Your task to perform on an android device: turn off sleep mode Image 0: 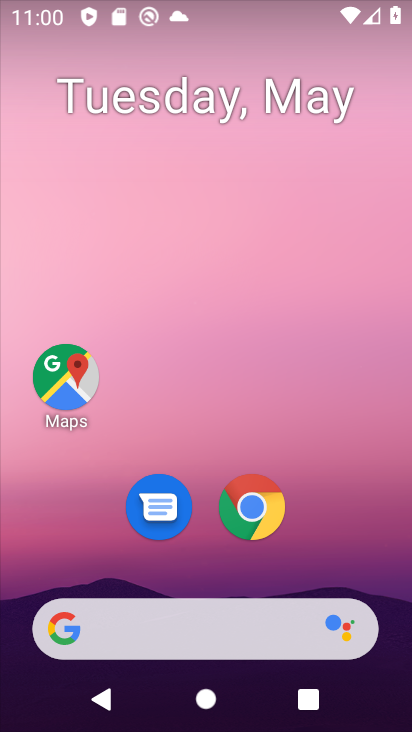
Step 0: drag from (233, 488) to (186, 142)
Your task to perform on an android device: turn off sleep mode Image 1: 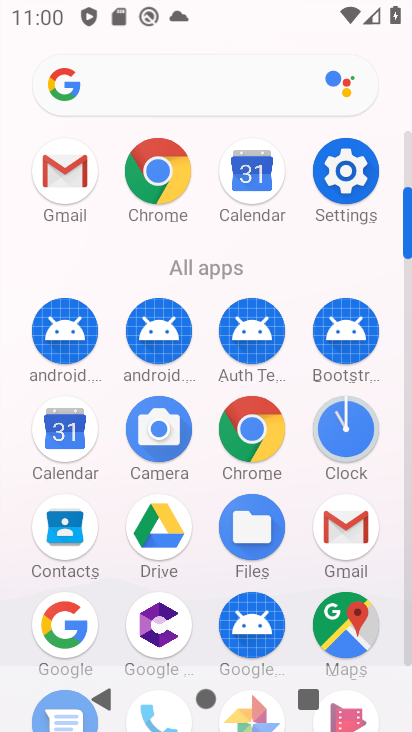
Step 1: click (331, 159)
Your task to perform on an android device: turn off sleep mode Image 2: 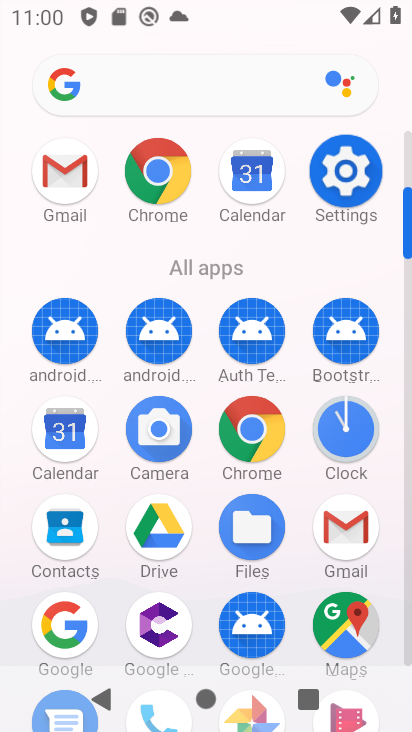
Step 2: click (338, 169)
Your task to perform on an android device: turn off sleep mode Image 3: 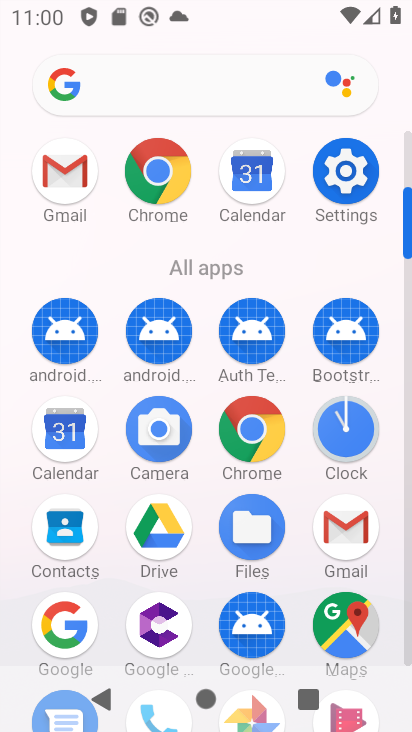
Step 3: click (338, 171)
Your task to perform on an android device: turn off sleep mode Image 4: 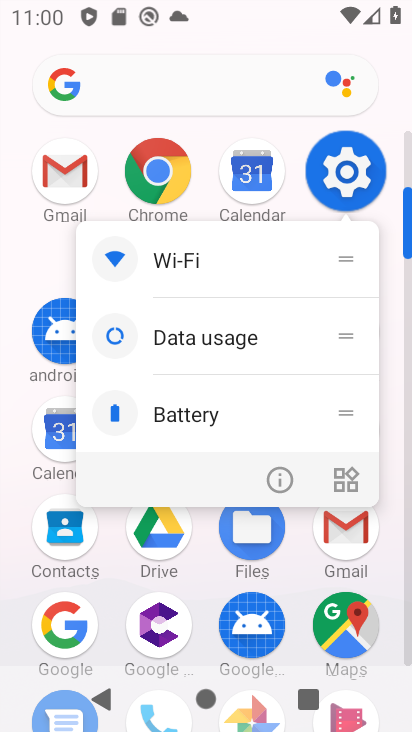
Step 4: click (343, 165)
Your task to perform on an android device: turn off sleep mode Image 5: 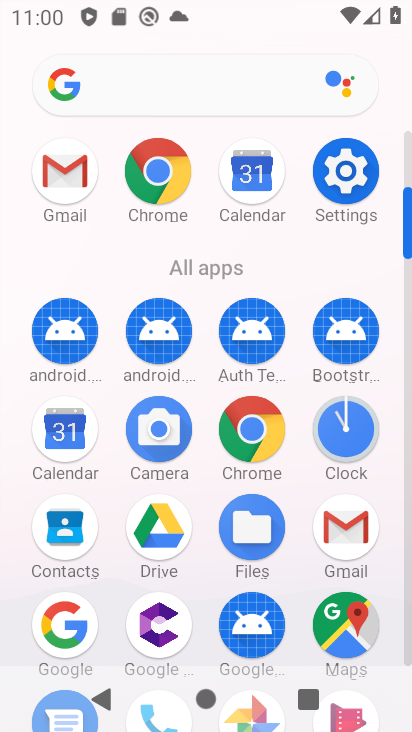
Step 5: click (353, 168)
Your task to perform on an android device: turn off sleep mode Image 6: 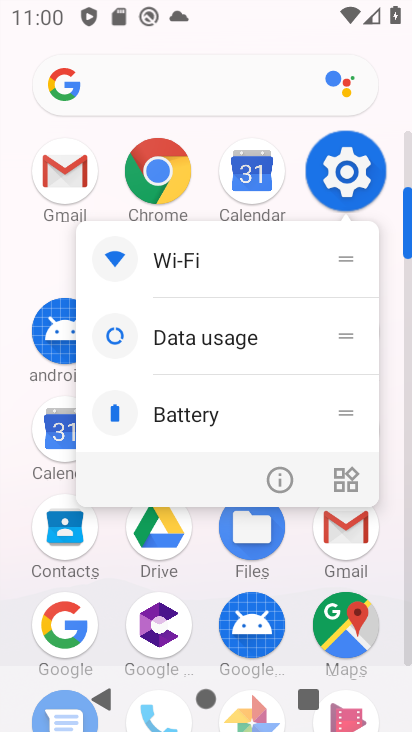
Step 6: click (358, 183)
Your task to perform on an android device: turn off sleep mode Image 7: 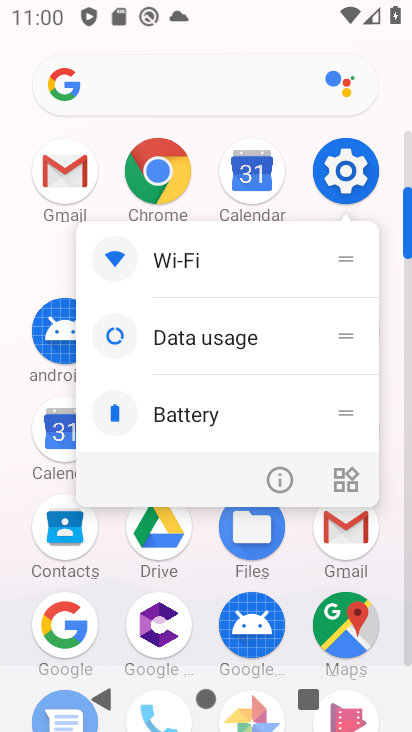
Step 7: task complete